Your task to perform on an android device: turn on showing notifications on the lock screen Image 0: 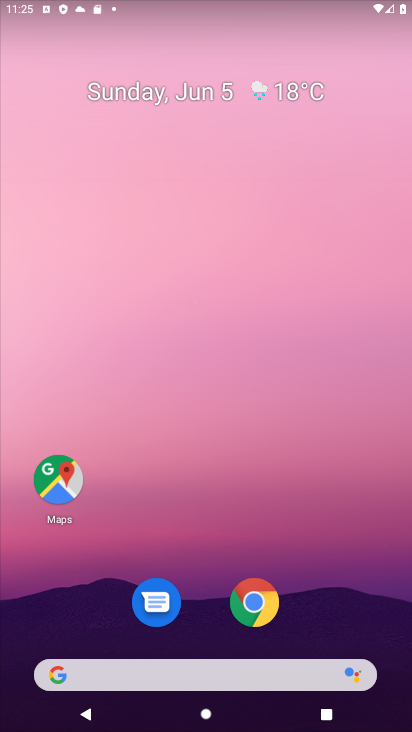
Step 0: drag from (357, 629) to (252, 24)
Your task to perform on an android device: turn on showing notifications on the lock screen Image 1: 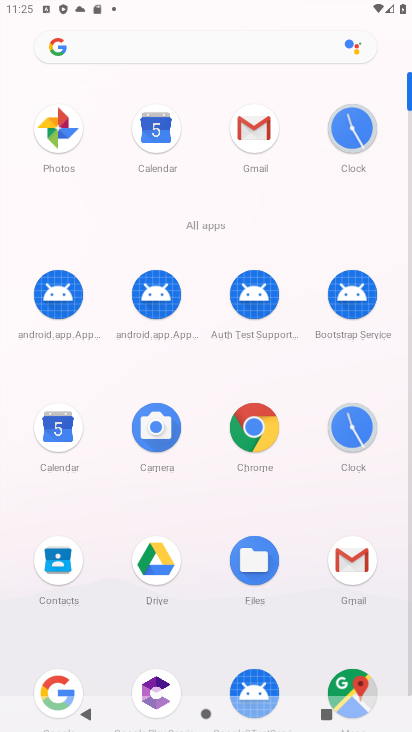
Step 1: task complete